Your task to perform on an android device: delete the emails in spam in the gmail app Image 0: 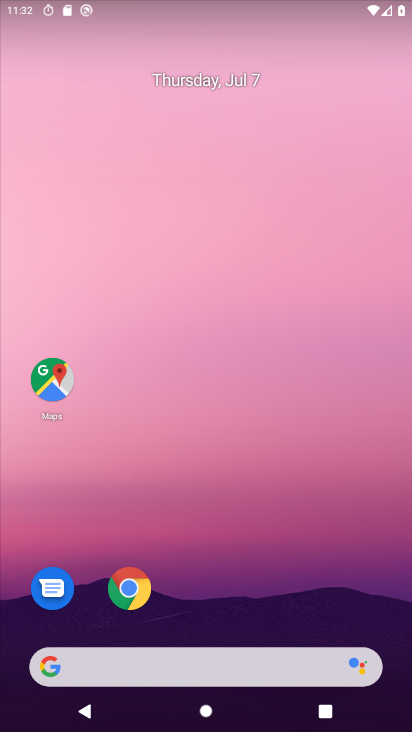
Step 0: press home button
Your task to perform on an android device: delete the emails in spam in the gmail app Image 1: 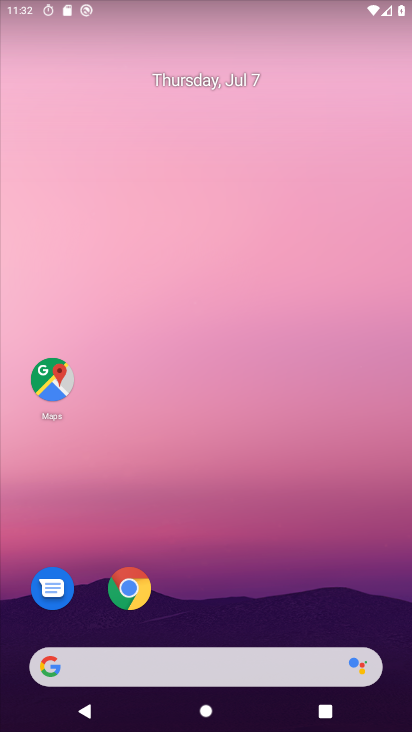
Step 1: drag from (120, 662) to (319, 99)
Your task to perform on an android device: delete the emails in spam in the gmail app Image 2: 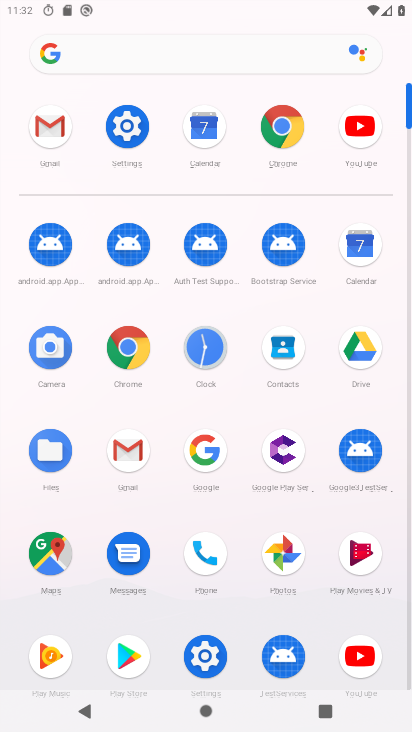
Step 2: click (46, 127)
Your task to perform on an android device: delete the emails in spam in the gmail app Image 3: 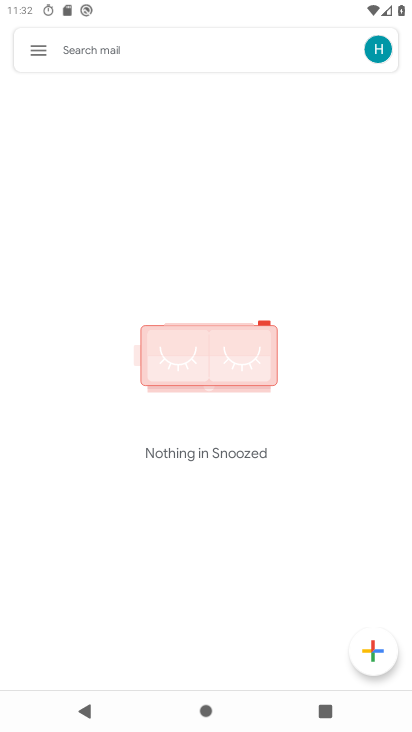
Step 3: click (38, 44)
Your task to perform on an android device: delete the emails in spam in the gmail app Image 4: 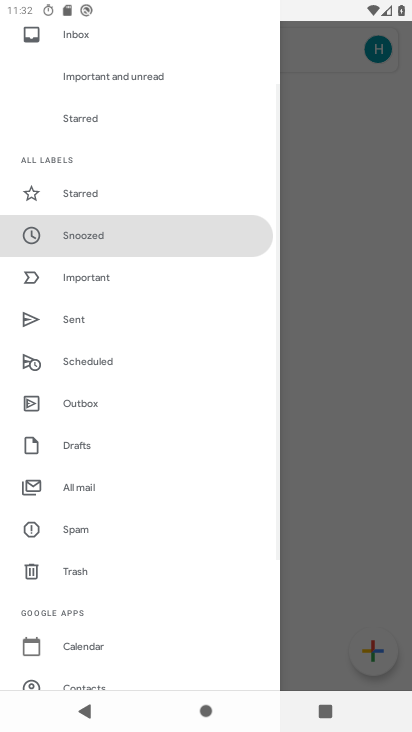
Step 4: click (90, 525)
Your task to perform on an android device: delete the emails in spam in the gmail app Image 5: 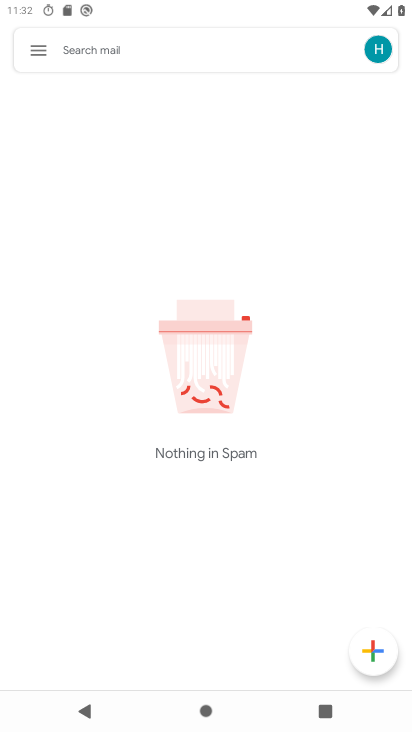
Step 5: task complete